Your task to perform on an android device: turn vacation reply on in the gmail app Image 0: 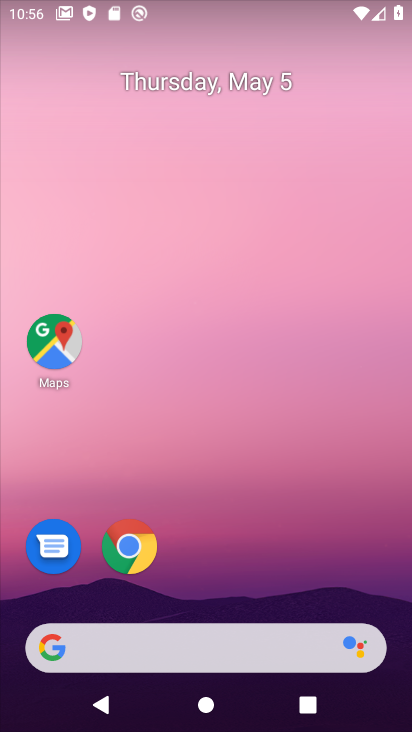
Step 0: drag from (47, 603) to (267, 151)
Your task to perform on an android device: turn vacation reply on in the gmail app Image 1: 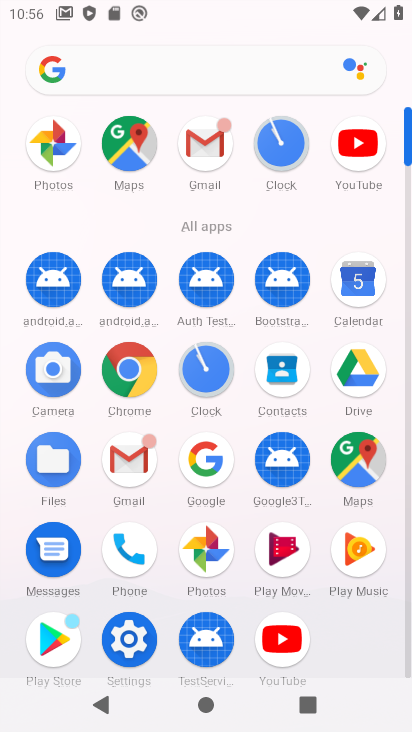
Step 1: click (213, 139)
Your task to perform on an android device: turn vacation reply on in the gmail app Image 2: 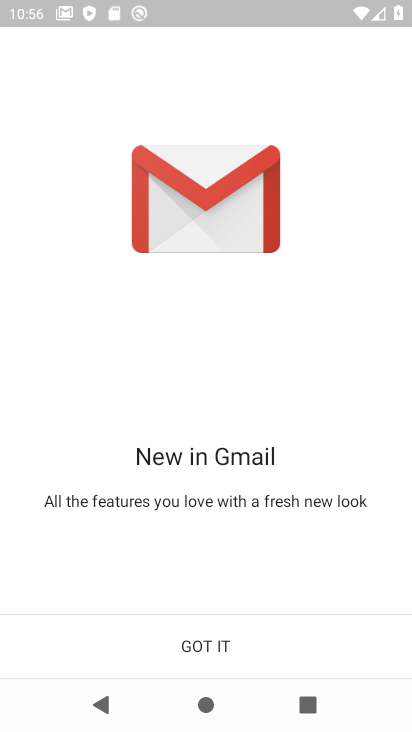
Step 2: click (188, 647)
Your task to perform on an android device: turn vacation reply on in the gmail app Image 3: 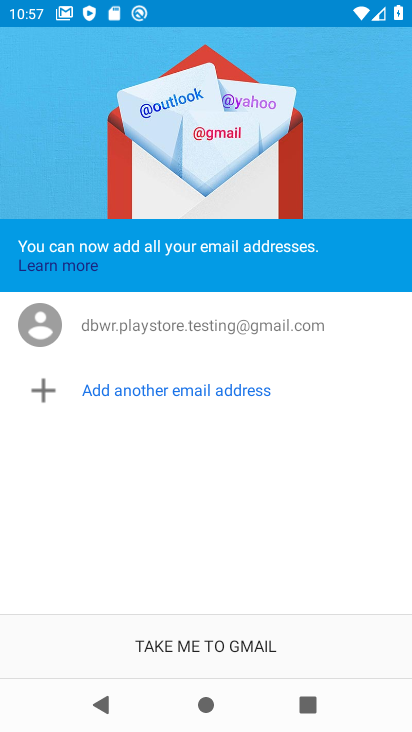
Step 3: click (187, 649)
Your task to perform on an android device: turn vacation reply on in the gmail app Image 4: 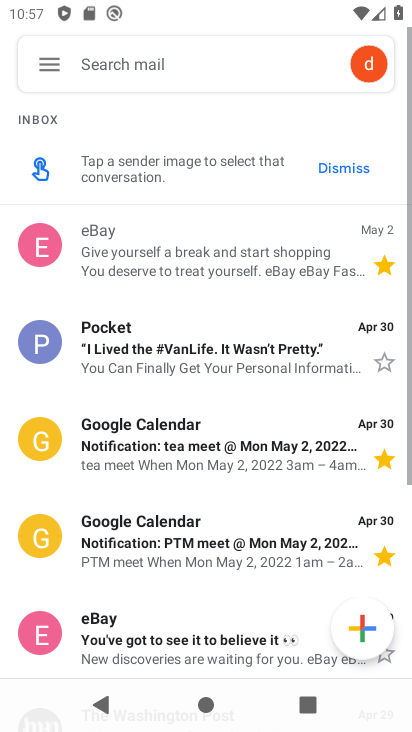
Step 4: click (41, 60)
Your task to perform on an android device: turn vacation reply on in the gmail app Image 5: 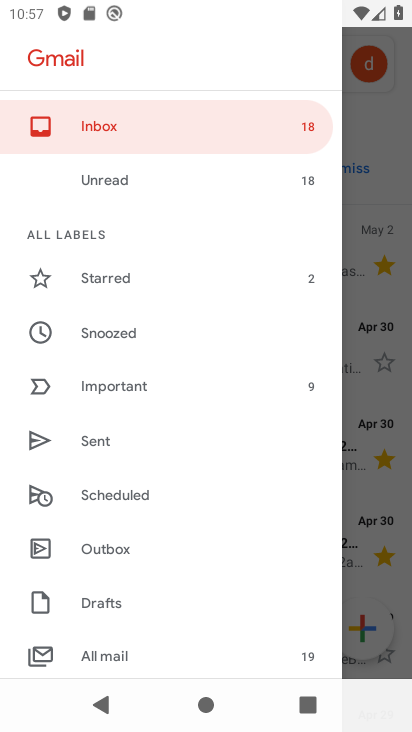
Step 5: drag from (147, 637) to (249, 174)
Your task to perform on an android device: turn vacation reply on in the gmail app Image 6: 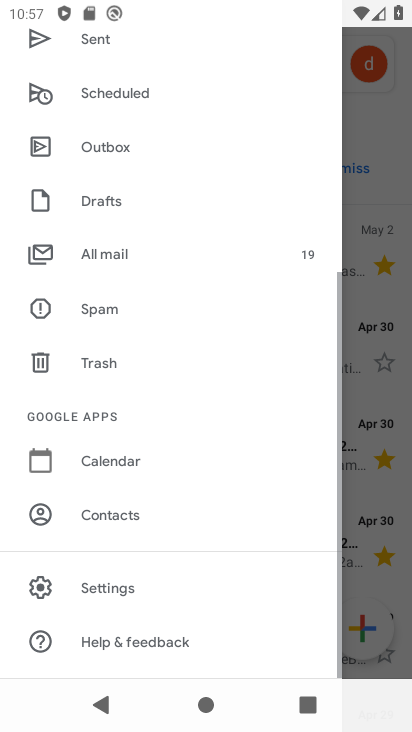
Step 6: click (117, 585)
Your task to perform on an android device: turn vacation reply on in the gmail app Image 7: 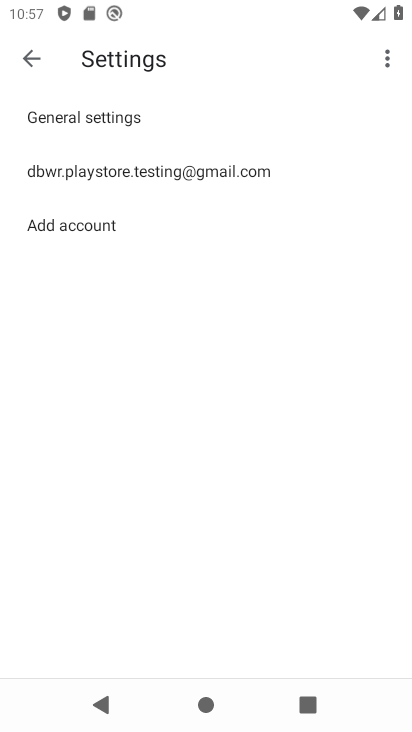
Step 7: click (204, 183)
Your task to perform on an android device: turn vacation reply on in the gmail app Image 8: 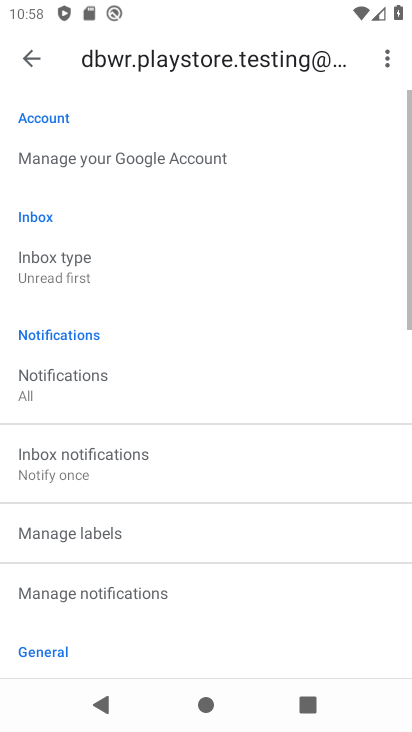
Step 8: drag from (208, 627) to (305, 211)
Your task to perform on an android device: turn vacation reply on in the gmail app Image 9: 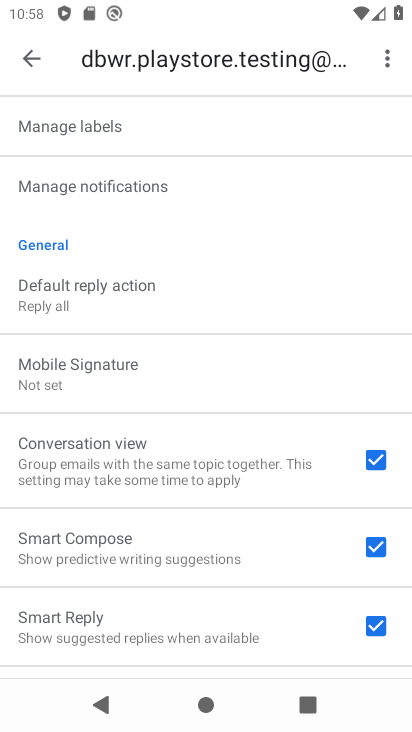
Step 9: drag from (186, 623) to (297, 203)
Your task to perform on an android device: turn vacation reply on in the gmail app Image 10: 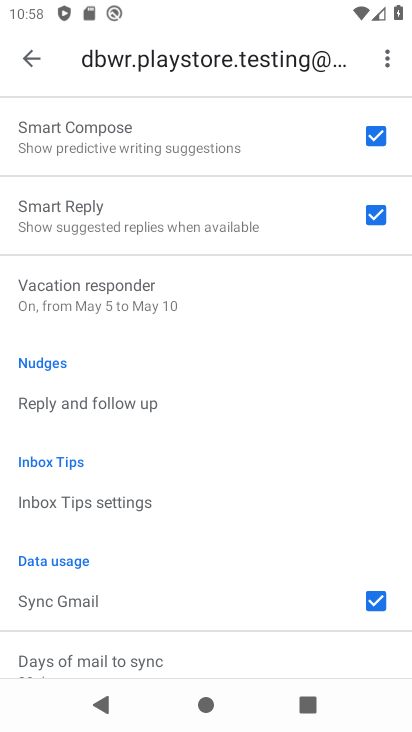
Step 10: click (150, 285)
Your task to perform on an android device: turn vacation reply on in the gmail app Image 11: 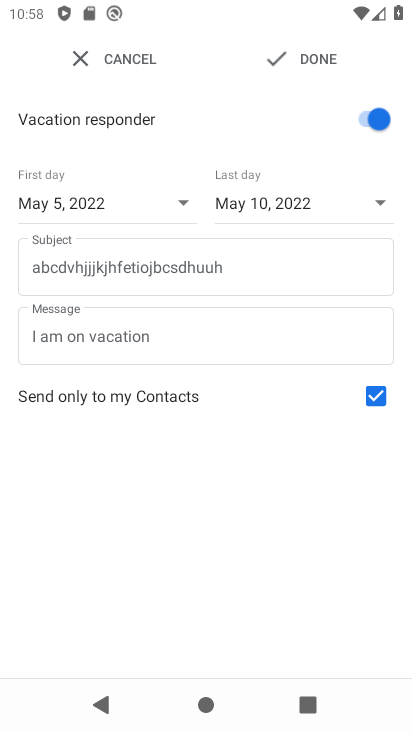
Step 11: click (289, 53)
Your task to perform on an android device: turn vacation reply on in the gmail app Image 12: 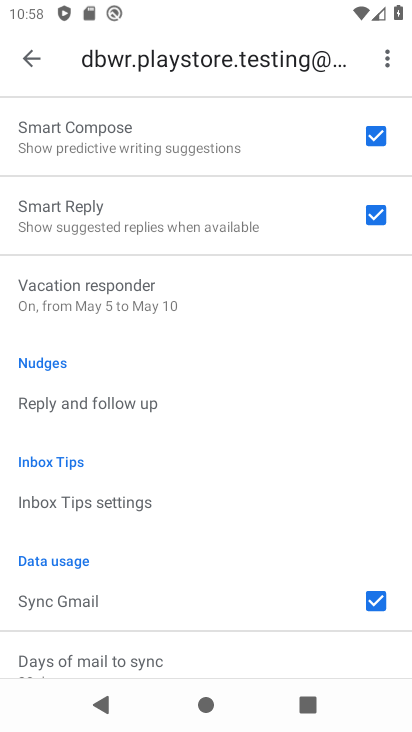
Step 12: task complete